Your task to perform on an android device: Open battery settings Image 0: 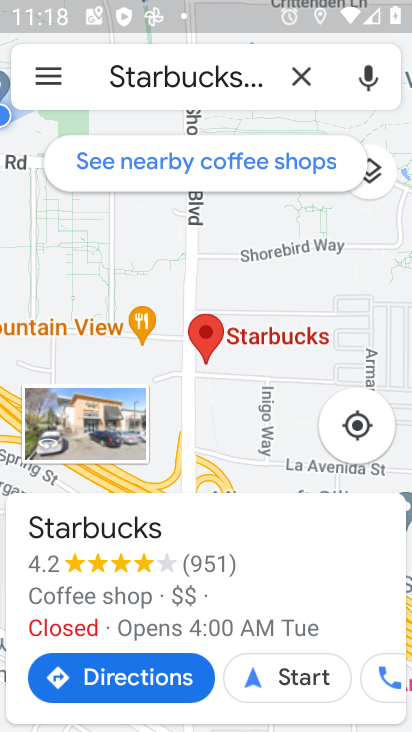
Step 0: press home button
Your task to perform on an android device: Open battery settings Image 1: 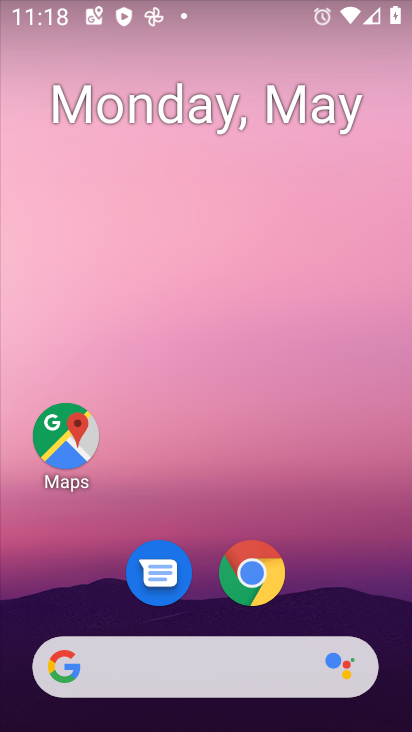
Step 1: drag from (346, 571) to (308, 37)
Your task to perform on an android device: Open battery settings Image 2: 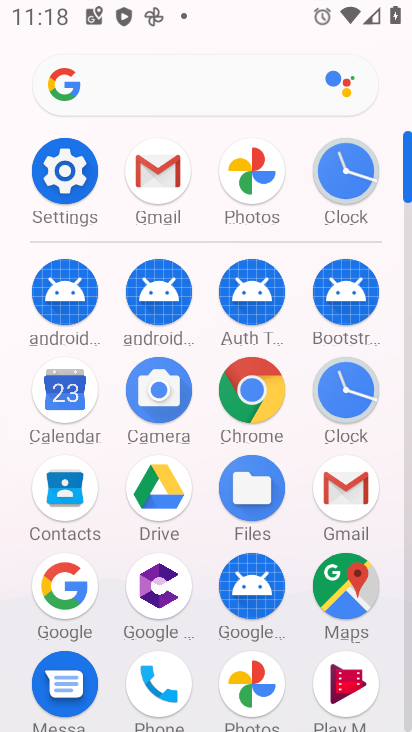
Step 2: click (64, 198)
Your task to perform on an android device: Open battery settings Image 3: 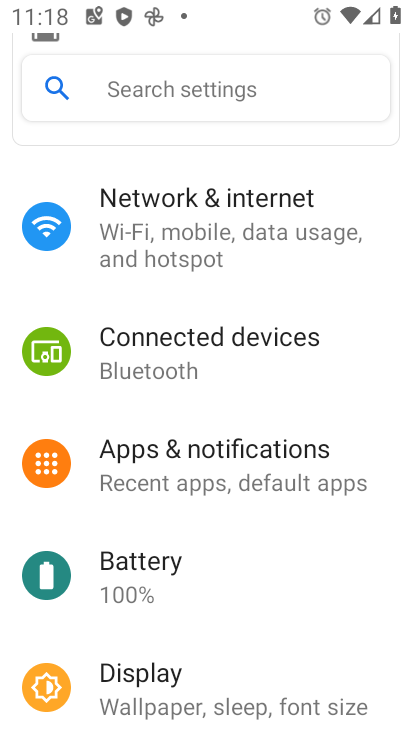
Step 3: click (158, 579)
Your task to perform on an android device: Open battery settings Image 4: 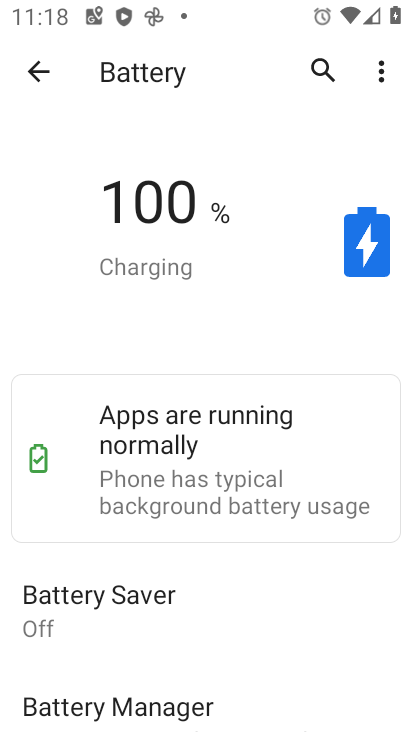
Step 4: task complete